Your task to perform on an android device: Open Google Image 0: 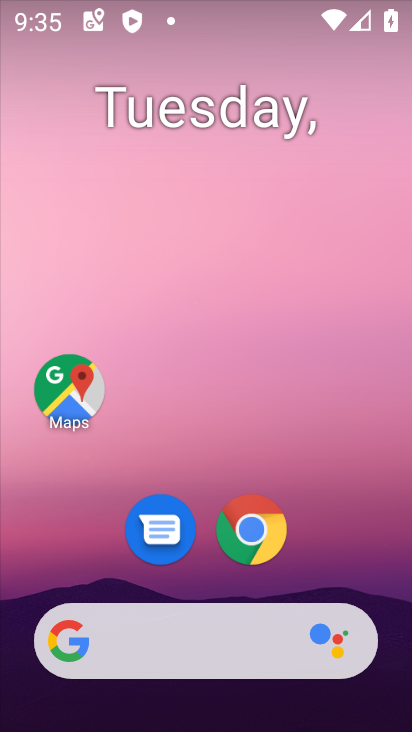
Step 0: drag from (248, 640) to (311, 91)
Your task to perform on an android device: Open Google Image 1: 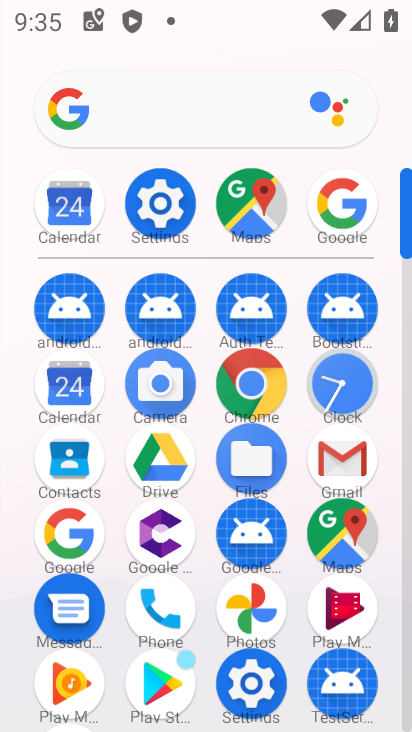
Step 1: drag from (281, 496) to (333, 231)
Your task to perform on an android device: Open Google Image 2: 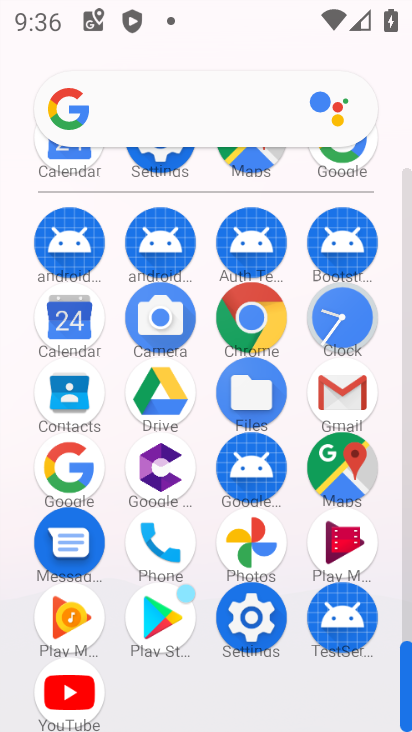
Step 2: click (75, 473)
Your task to perform on an android device: Open Google Image 3: 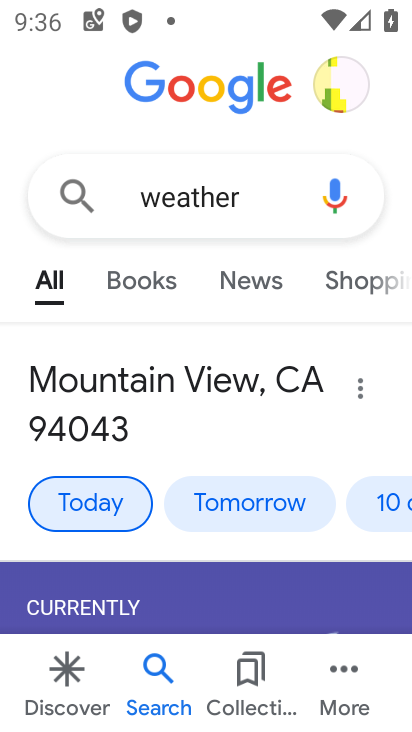
Step 3: task complete